Your task to perform on an android device: Search for sushi restaurants on Maps Image 0: 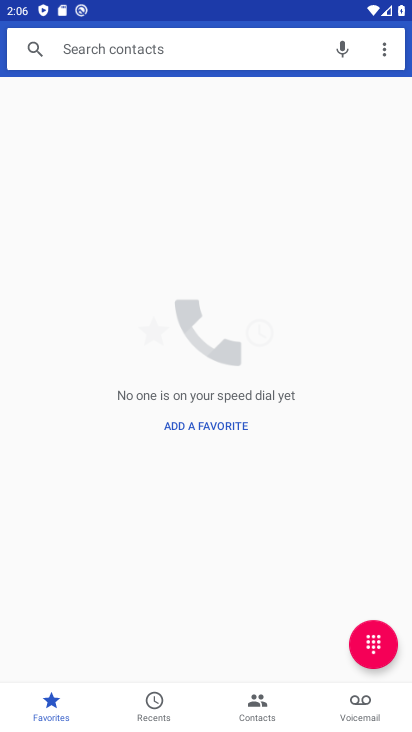
Step 0: press home button
Your task to perform on an android device: Search for sushi restaurants on Maps Image 1: 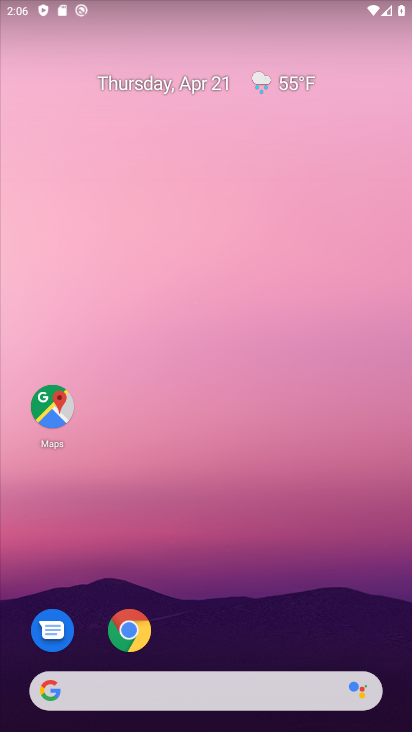
Step 1: click (270, 637)
Your task to perform on an android device: Search for sushi restaurants on Maps Image 2: 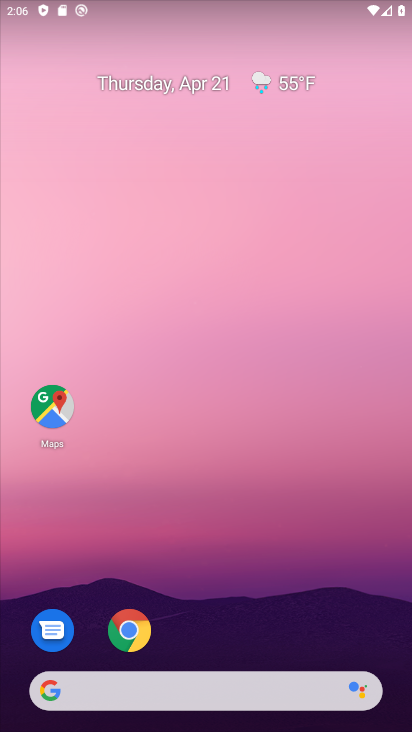
Step 2: click (47, 406)
Your task to perform on an android device: Search for sushi restaurants on Maps Image 3: 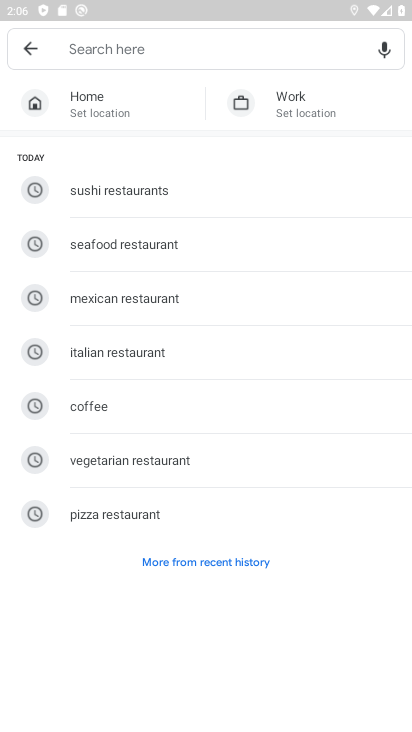
Step 3: click (47, 406)
Your task to perform on an android device: Search for sushi restaurants on Maps Image 4: 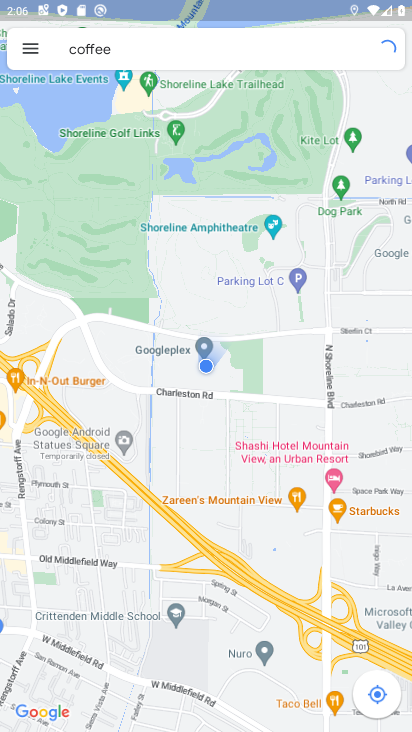
Step 4: click (124, 193)
Your task to perform on an android device: Search for sushi restaurants on Maps Image 5: 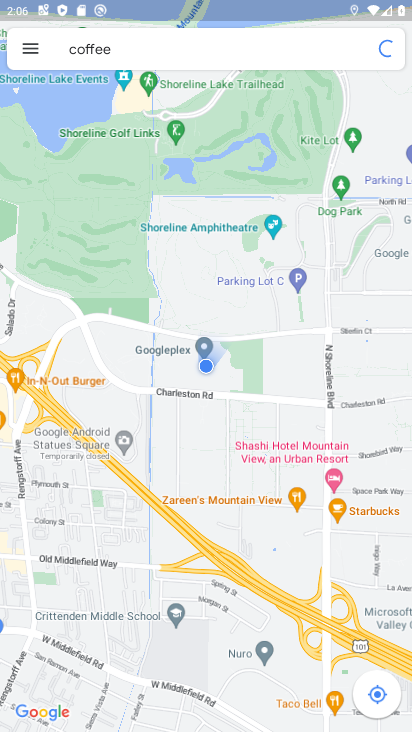
Step 5: click (172, 53)
Your task to perform on an android device: Search for sushi restaurants on Maps Image 6: 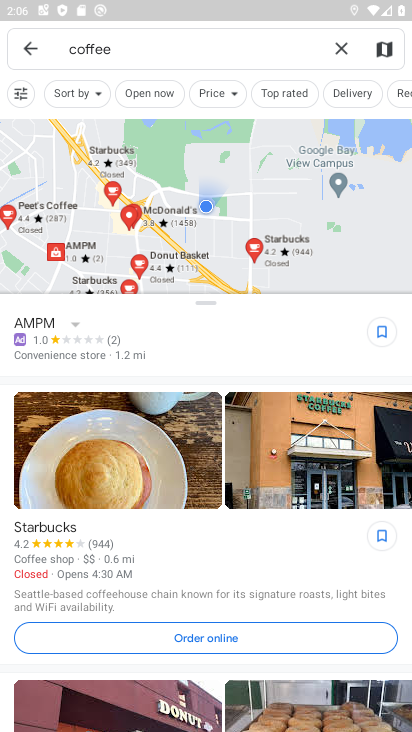
Step 6: click (337, 53)
Your task to perform on an android device: Search for sushi restaurants on Maps Image 7: 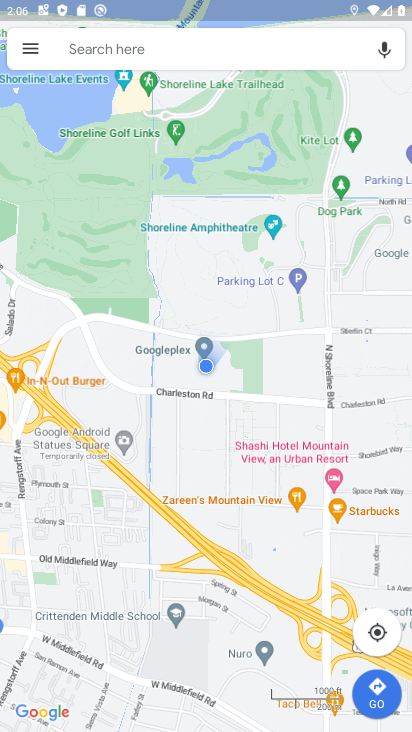
Step 7: click (279, 48)
Your task to perform on an android device: Search for sushi restaurants on Maps Image 8: 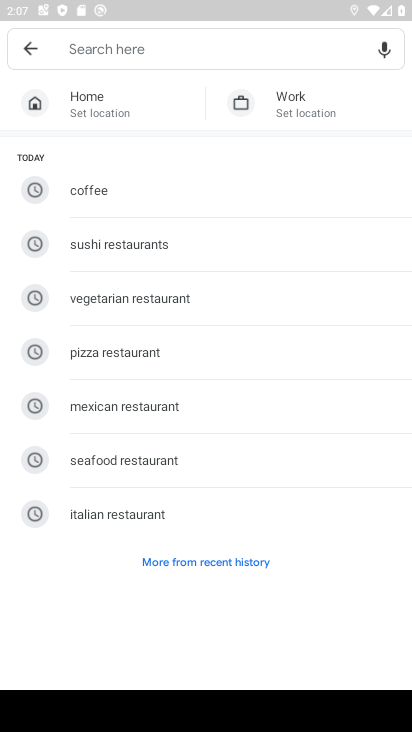
Step 8: type "sushi restaurants"
Your task to perform on an android device: Search for sushi restaurants on Maps Image 9: 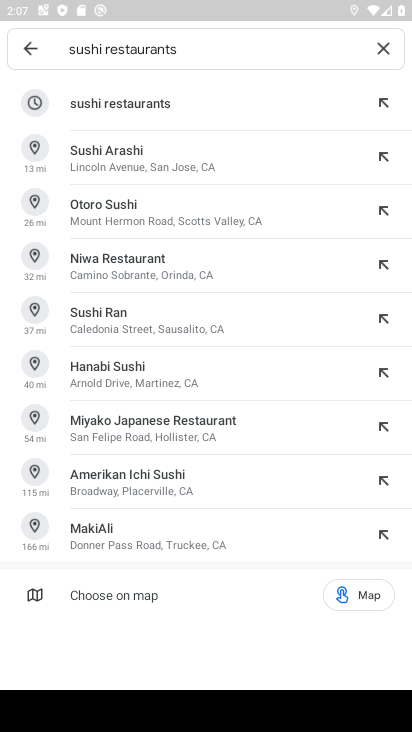
Step 9: click (163, 113)
Your task to perform on an android device: Search for sushi restaurants on Maps Image 10: 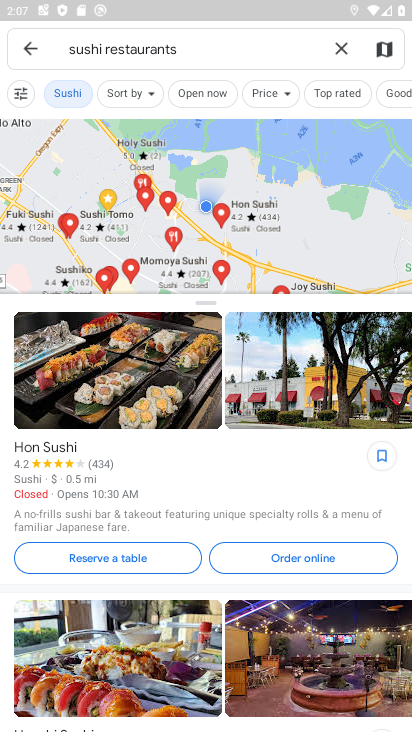
Step 10: task complete